Your task to perform on an android device: empty trash in google photos Image 0: 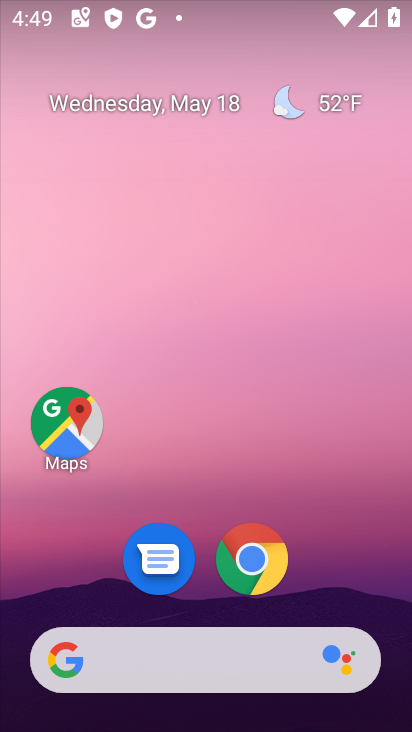
Step 0: drag from (209, 601) to (266, 86)
Your task to perform on an android device: empty trash in google photos Image 1: 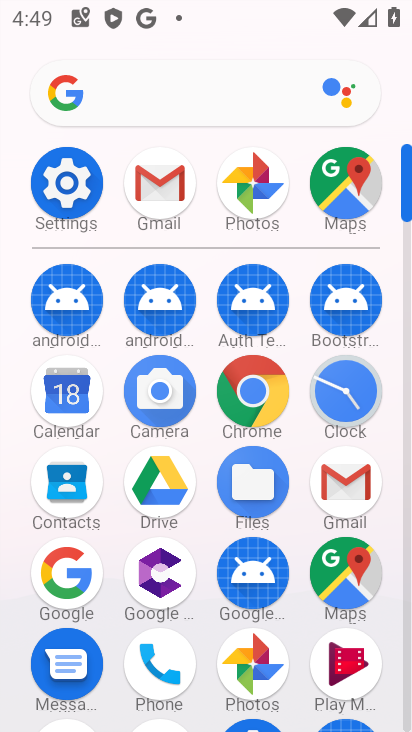
Step 1: click (266, 672)
Your task to perform on an android device: empty trash in google photos Image 2: 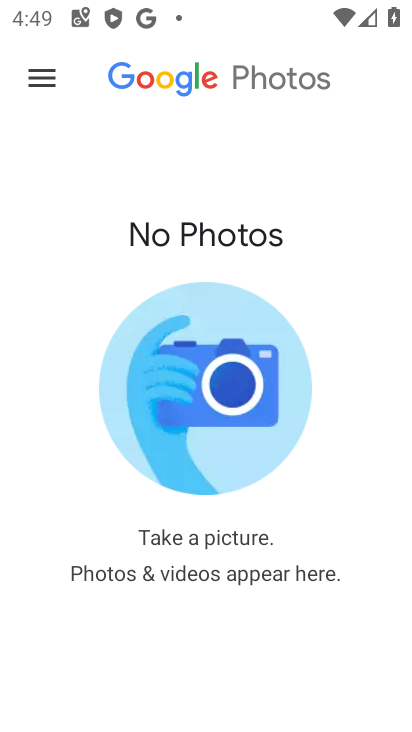
Step 2: click (55, 78)
Your task to perform on an android device: empty trash in google photos Image 3: 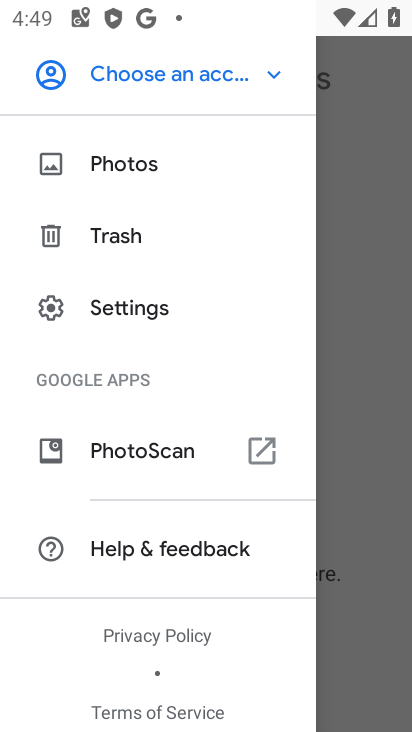
Step 3: click (118, 245)
Your task to perform on an android device: empty trash in google photos Image 4: 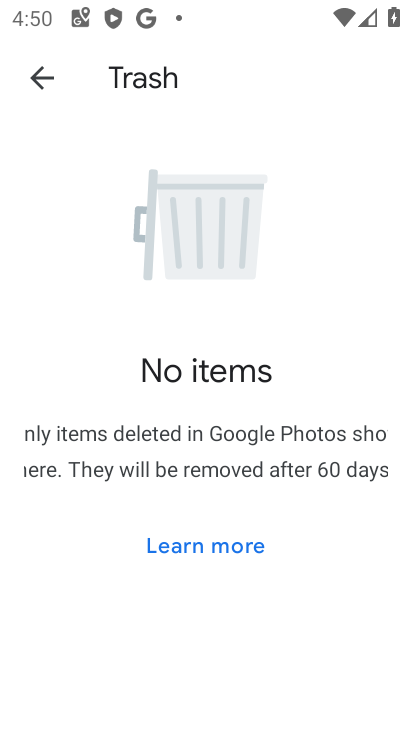
Step 4: task complete